Your task to perform on an android device: check storage Image 0: 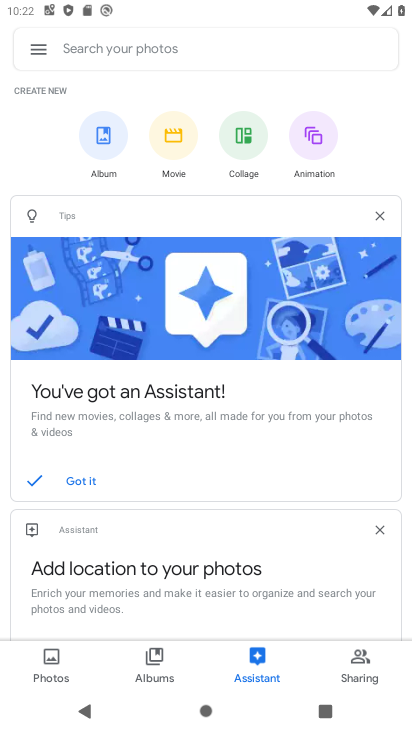
Step 0: press home button
Your task to perform on an android device: check storage Image 1: 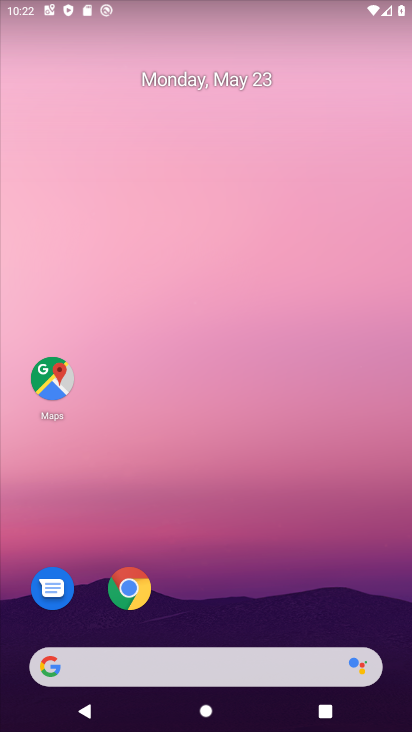
Step 1: drag from (260, 551) to (223, 53)
Your task to perform on an android device: check storage Image 2: 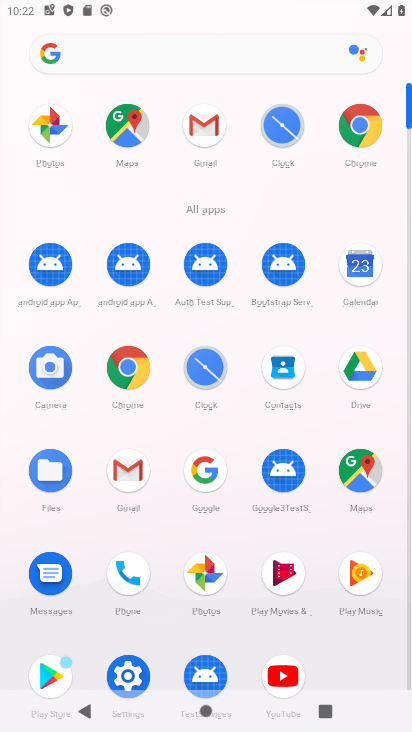
Step 2: click (129, 667)
Your task to perform on an android device: check storage Image 3: 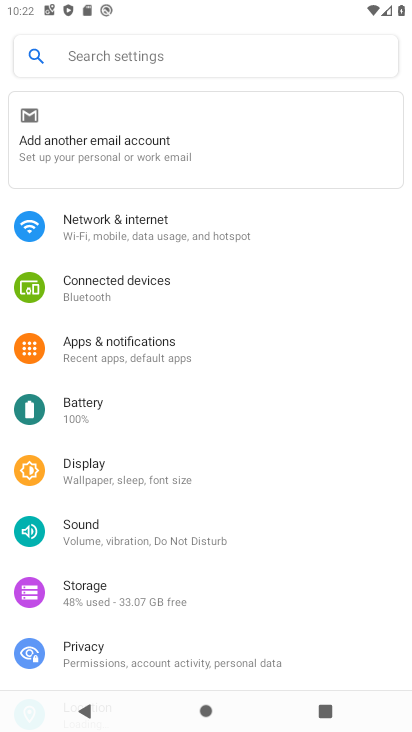
Step 3: drag from (152, 599) to (223, 318)
Your task to perform on an android device: check storage Image 4: 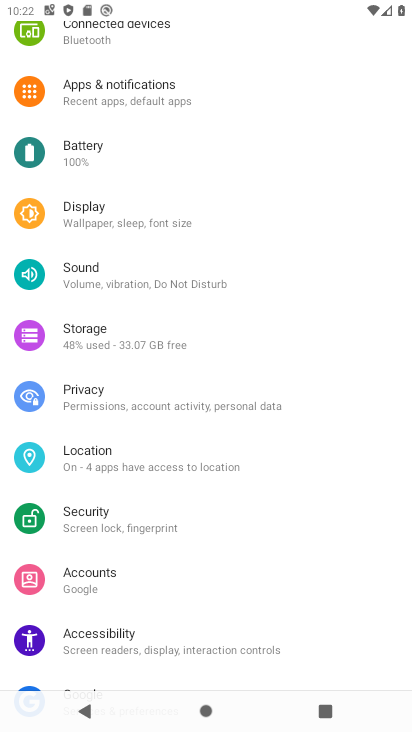
Step 4: click (122, 327)
Your task to perform on an android device: check storage Image 5: 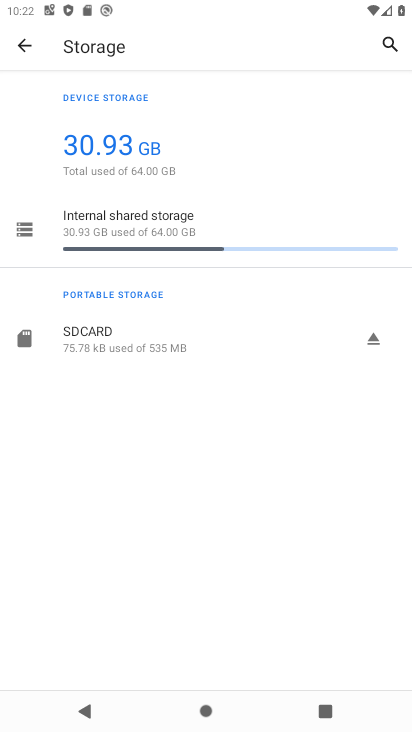
Step 5: task complete